Your task to perform on an android device: open a bookmark in the chrome app Image 0: 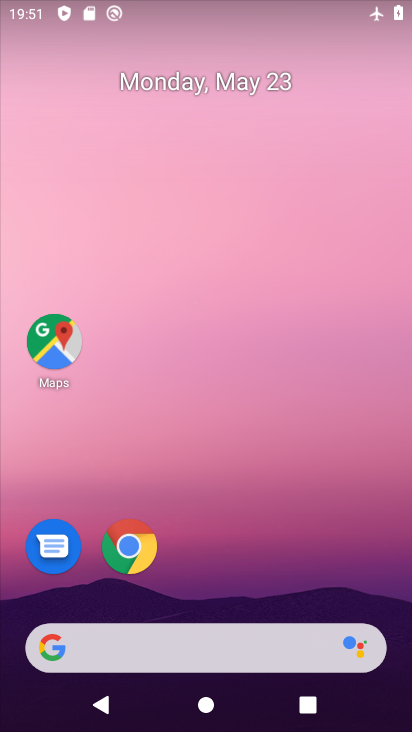
Step 0: drag from (390, 593) to (398, 281)
Your task to perform on an android device: open a bookmark in the chrome app Image 1: 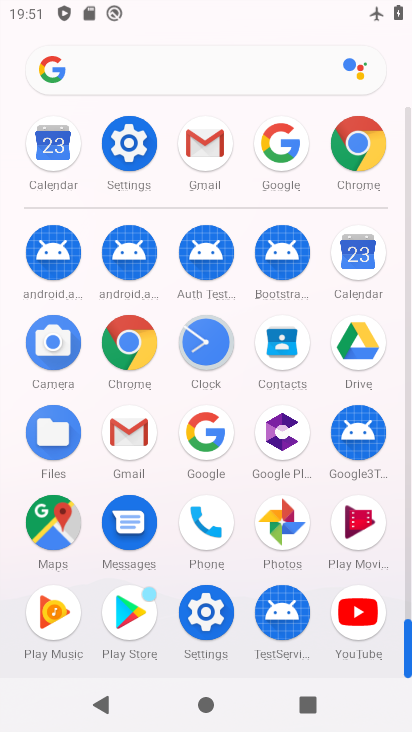
Step 1: click (139, 352)
Your task to perform on an android device: open a bookmark in the chrome app Image 2: 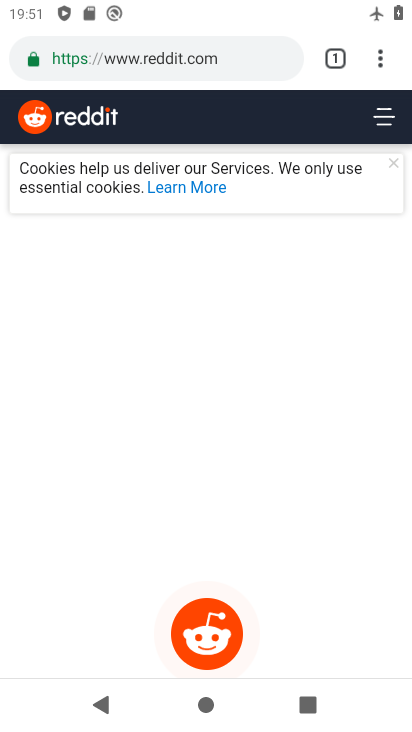
Step 2: click (382, 59)
Your task to perform on an android device: open a bookmark in the chrome app Image 3: 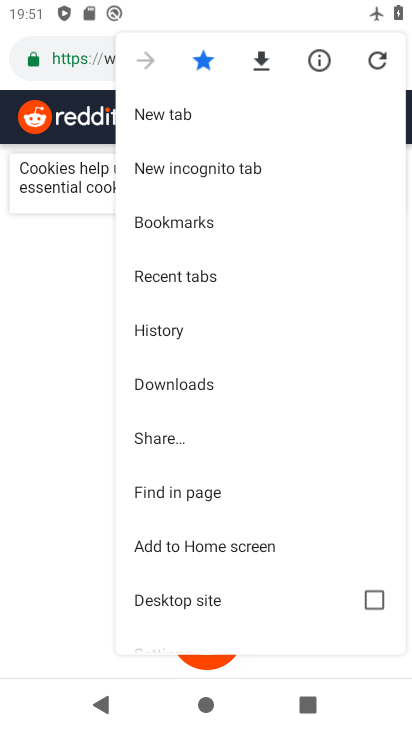
Step 3: drag from (338, 548) to (347, 442)
Your task to perform on an android device: open a bookmark in the chrome app Image 4: 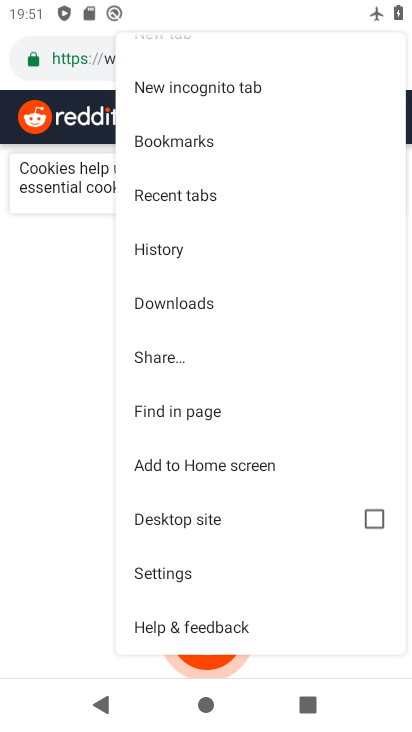
Step 4: drag from (332, 601) to (329, 490)
Your task to perform on an android device: open a bookmark in the chrome app Image 5: 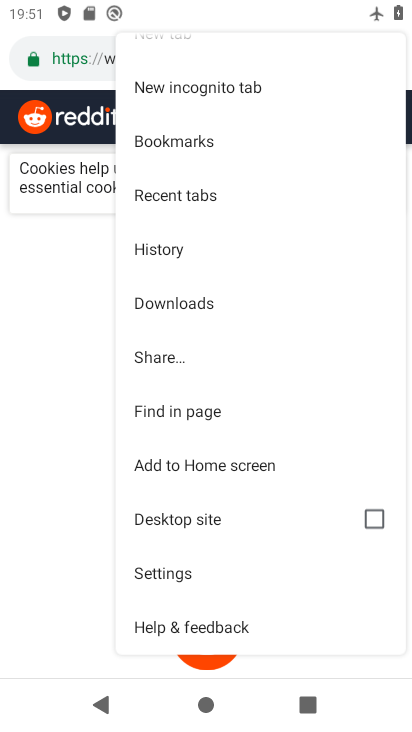
Step 5: drag from (336, 335) to (322, 473)
Your task to perform on an android device: open a bookmark in the chrome app Image 6: 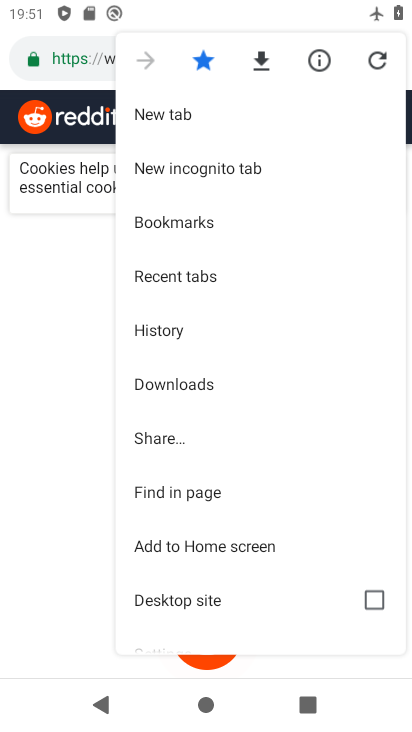
Step 6: drag from (345, 290) to (321, 423)
Your task to perform on an android device: open a bookmark in the chrome app Image 7: 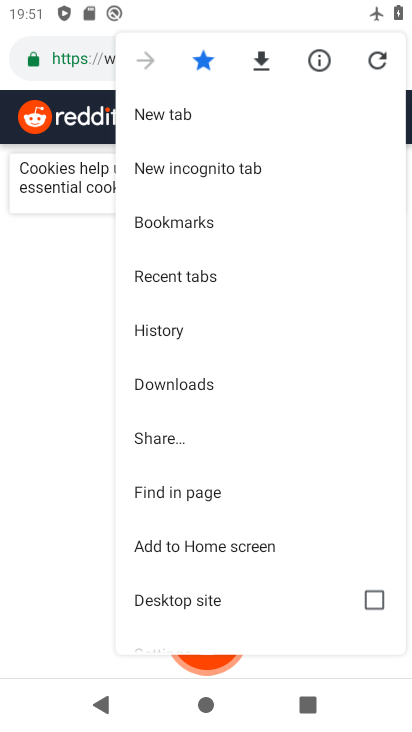
Step 7: click (241, 227)
Your task to perform on an android device: open a bookmark in the chrome app Image 8: 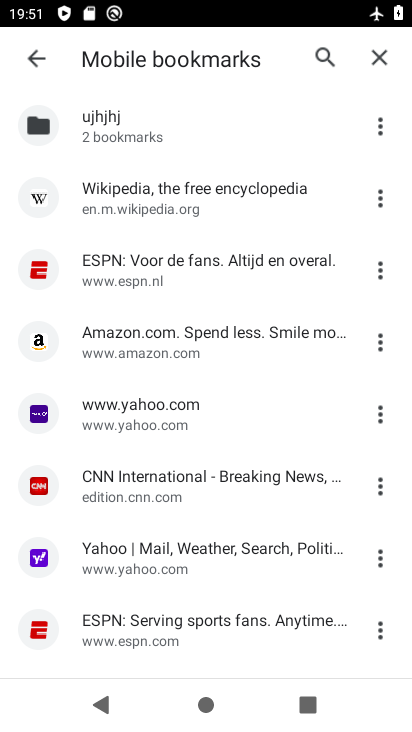
Step 8: click (250, 205)
Your task to perform on an android device: open a bookmark in the chrome app Image 9: 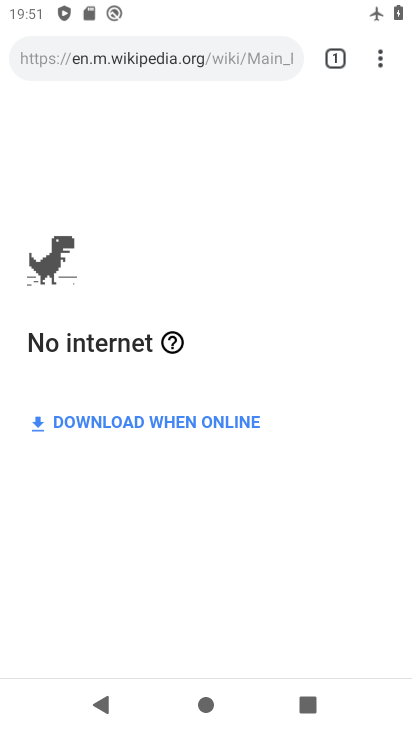
Step 9: task complete